Your task to perform on an android device: change the clock display to digital Image 0: 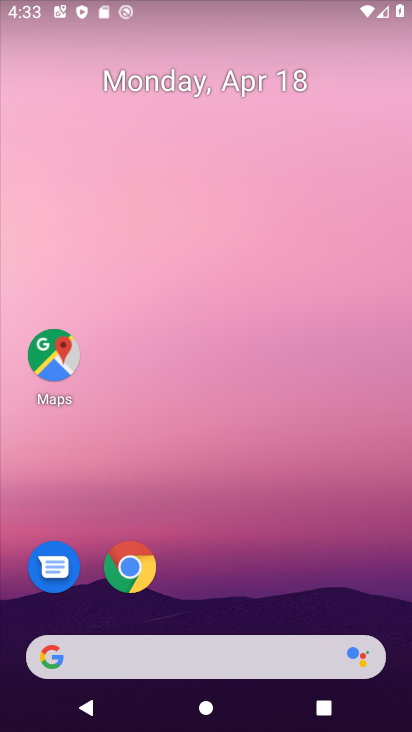
Step 0: drag from (221, 629) to (341, 138)
Your task to perform on an android device: change the clock display to digital Image 1: 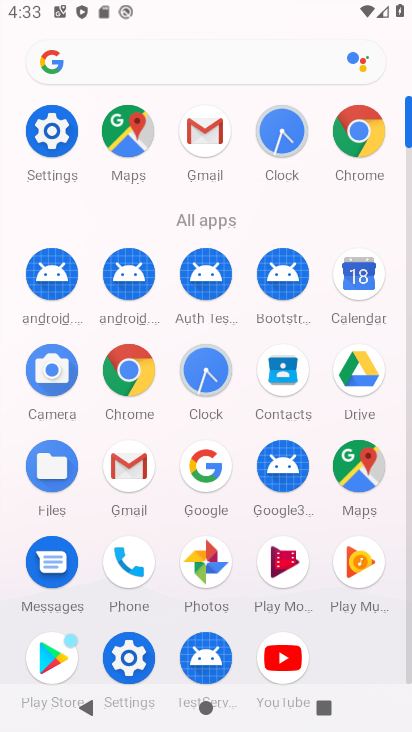
Step 1: click (271, 125)
Your task to perform on an android device: change the clock display to digital Image 2: 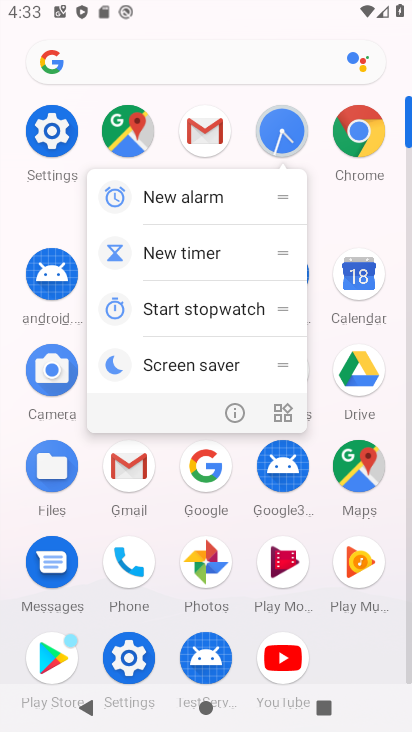
Step 2: click (271, 125)
Your task to perform on an android device: change the clock display to digital Image 3: 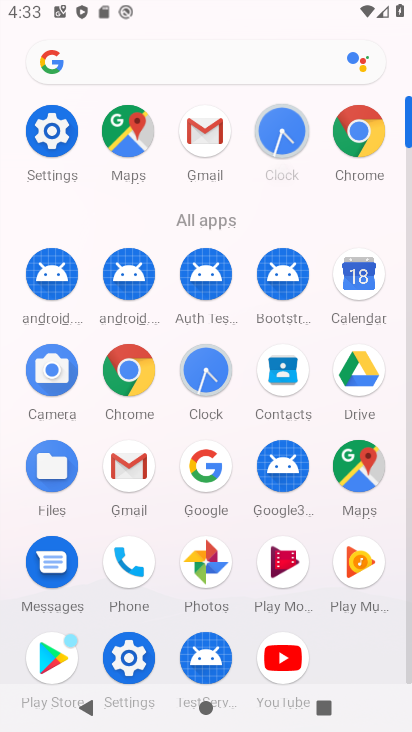
Step 3: click (271, 125)
Your task to perform on an android device: change the clock display to digital Image 4: 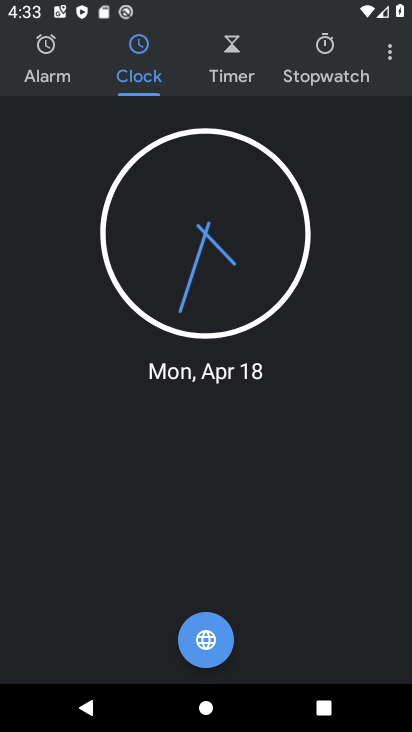
Step 4: click (271, 125)
Your task to perform on an android device: change the clock display to digital Image 5: 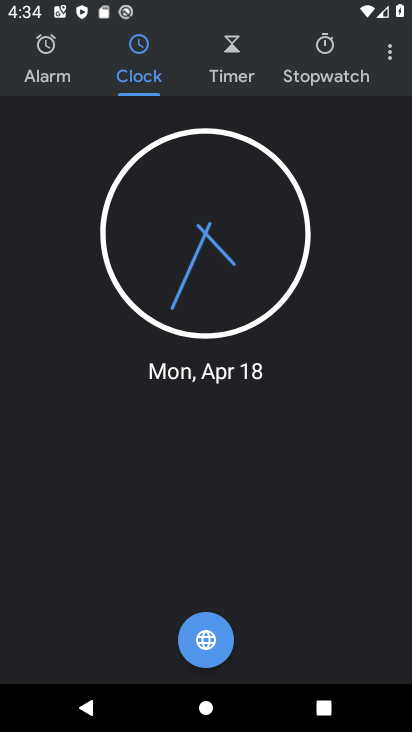
Step 5: click (393, 51)
Your task to perform on an android device: change the clock display to digital Image 6: 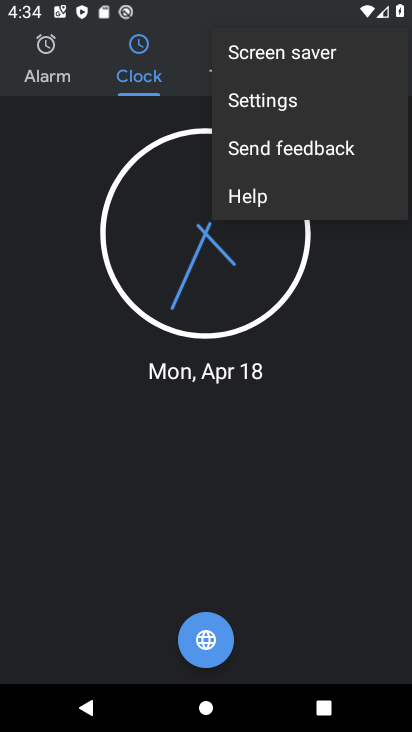
Step 6: click (284, 106)
Your task to perform on an android device: change the clock display to digital Image 7: 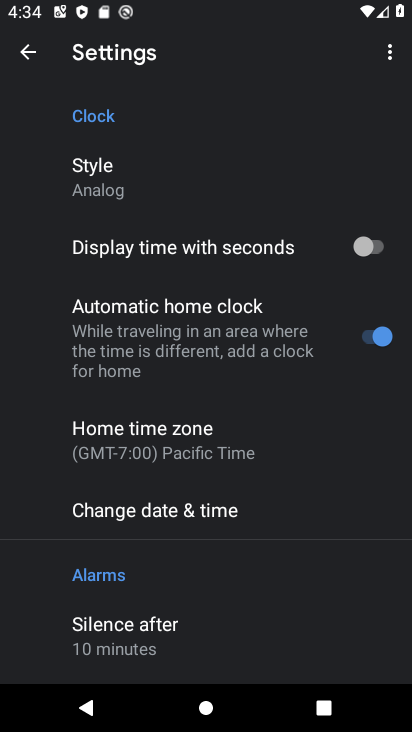
Step 7: click (123, 184)
Your task to perform on an android device: change the clock display to digital Image 8: 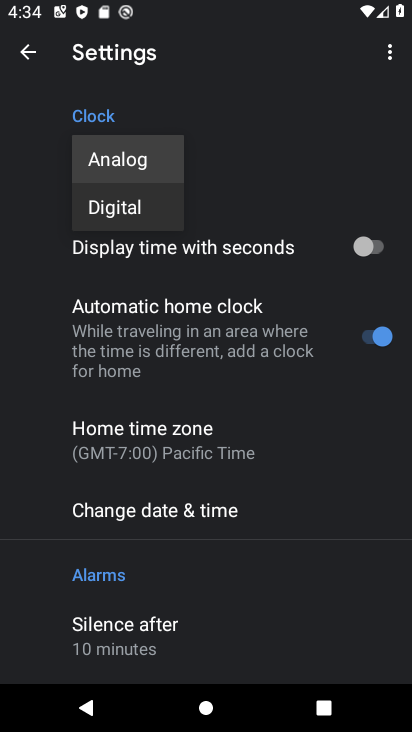
Step 8: click (158, 210)
Your task to perform on an android device: change the clock display to digital Image 9: 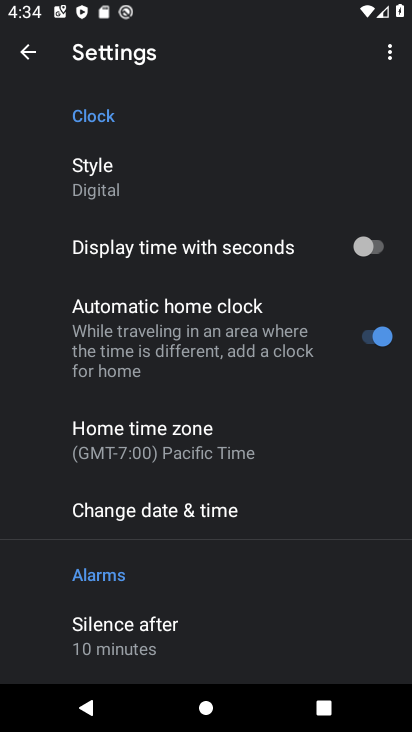
Step 9: task complete